Your task to perform on an android device: Go to eBay Image 0: 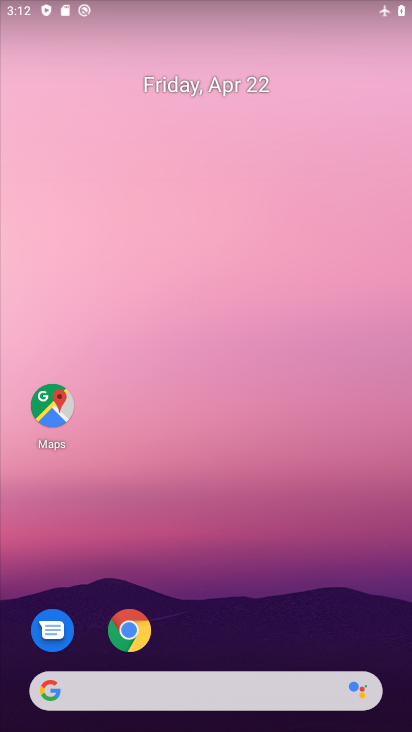
Step 0: click (130, 626)
Your task to perform on an android device: Go to eBay Image 1: 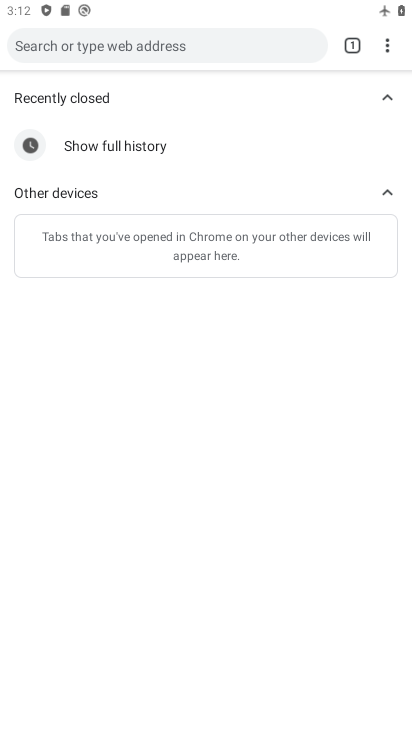
Step 1: click (142, 49)
Your task to perform on an android device: Go to eBay Image 2: 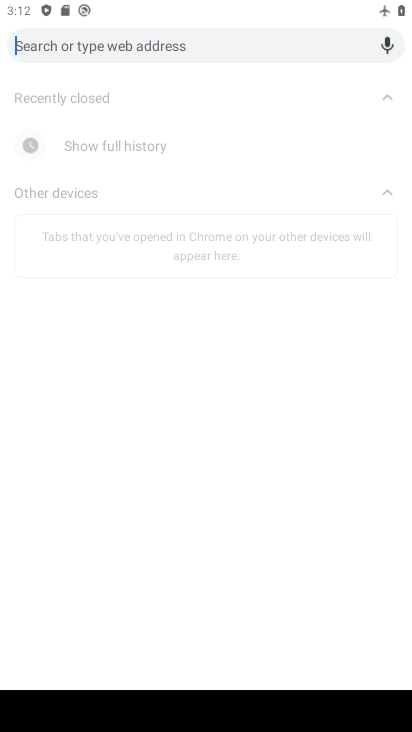
Step 2: type "eBay"
Your task to perform on an android device: Go to eBay Image 3: 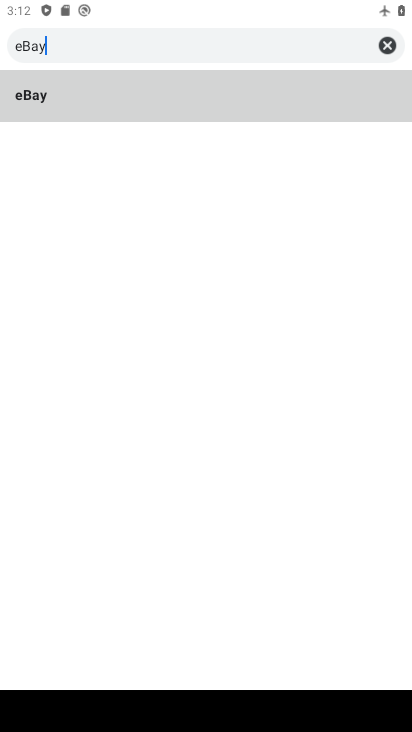
Step 3: click (146, 99)
Your task to perform on an android device: Go to eBay Image 4: 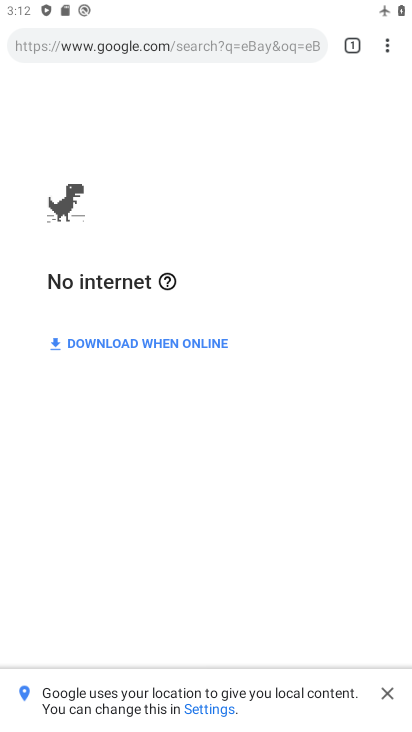
Step 4: task complete